Your task to perform on an android device: set the stopwatch Image 0: 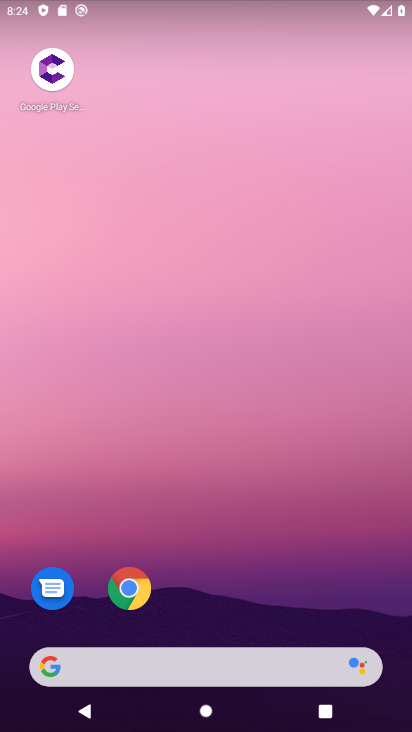
Step 0: drag from (309, 560) to (366, 13)
Your task to perform on an android device: set the stopwatch Image 1: 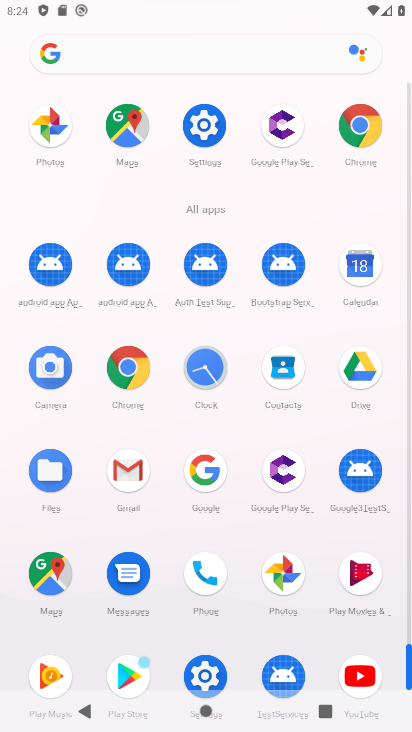
Step 1: click (199, 376)
Your task to perform on an android device: set the stopwatch Image 2: 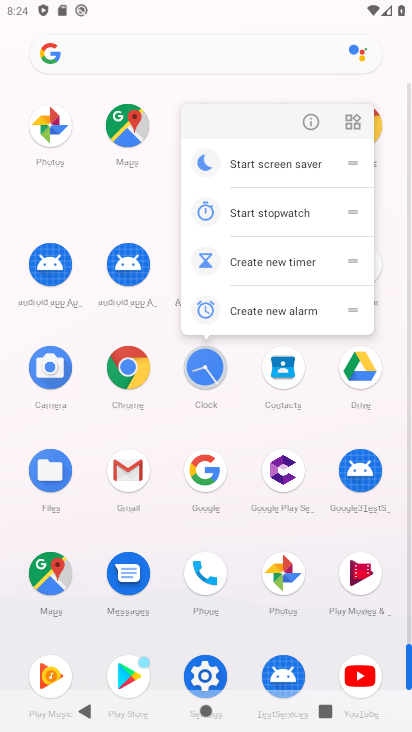
Step 2: click (199, 376)
Your task to perform on an android device: set the stopwatch Image 3: 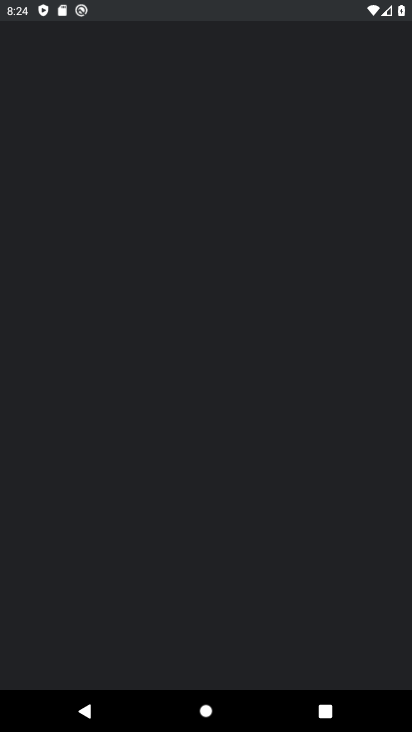
Step 3: click (199, 376)
Your task to perform on an android device: set the stopwatch Image 4: 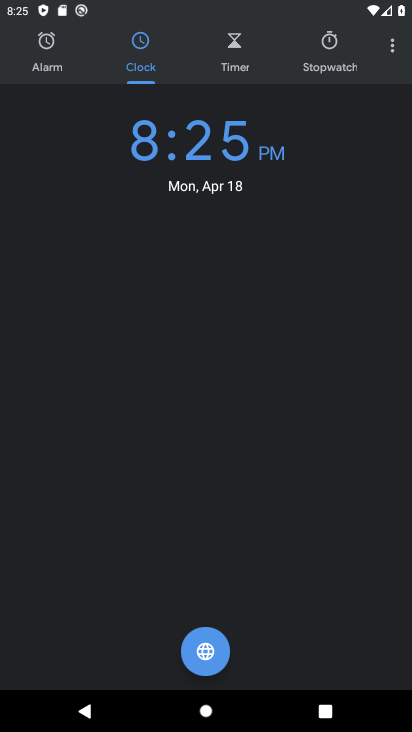
Step 4: click (325, 59)
Your task to perform on an android device: set the stopwatch Image 5: 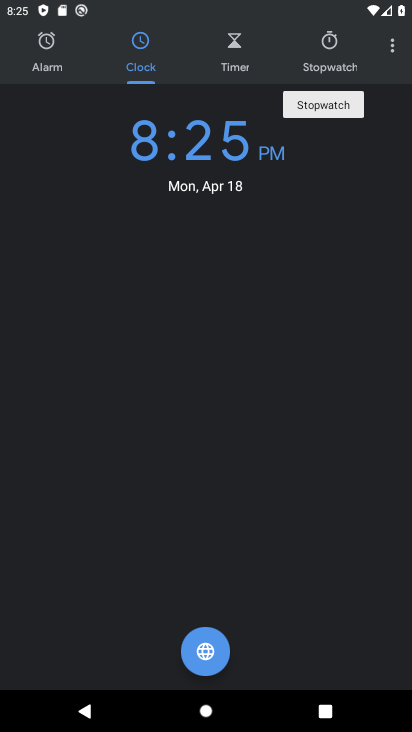
Step 5: click (325, 58)
Your task to perform on an android device: set the stopwatch Image 6: 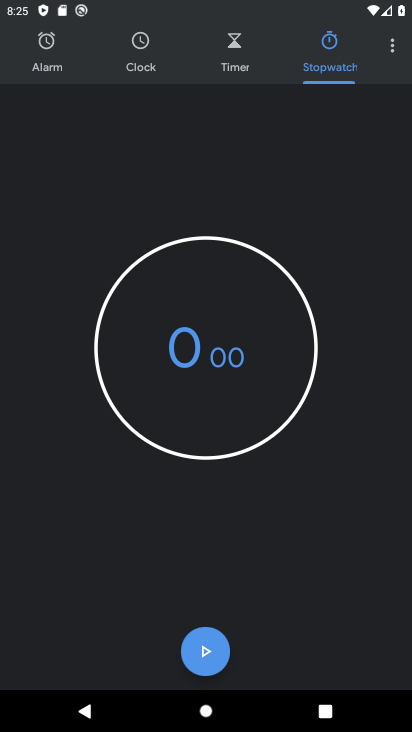
Step 6: click (211, 661)
Your task to perform on an android device: set the stopwatch Image 7: 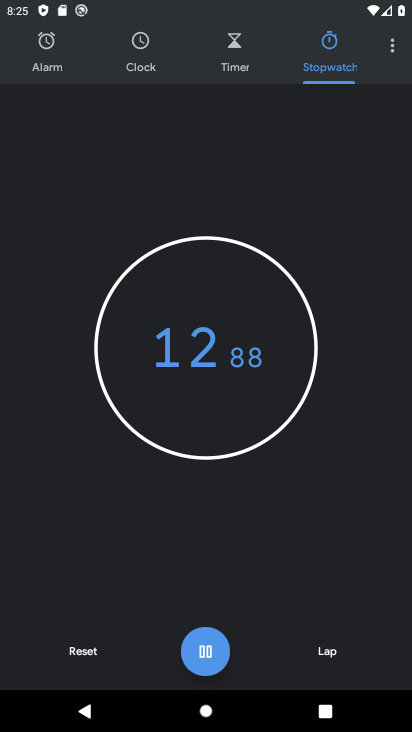
Step 7: task complete